Your task to perform on an android device: Show me the alarms in the clock app Image 0: 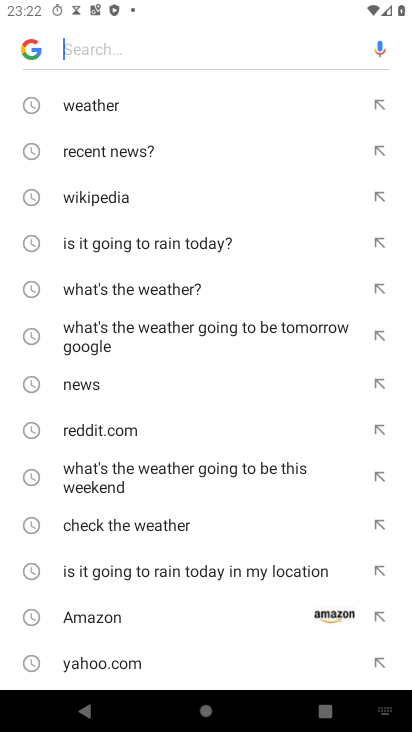
Step 0: press home button
Your task to perform on an android device: Show me the alarms in the clock app Image 1: 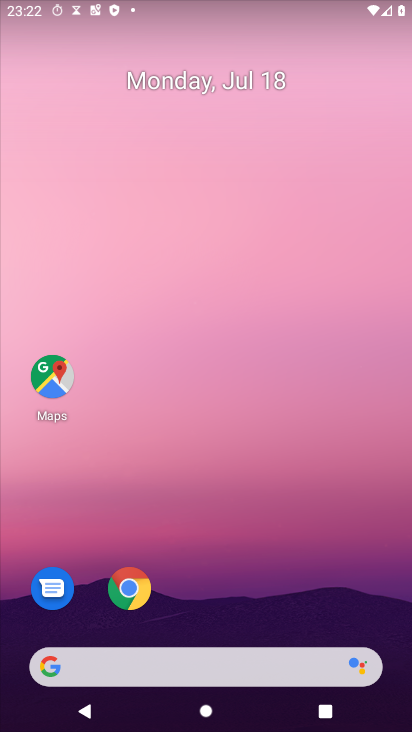
Step 1: drag from (184, 668) to (233, 222)
Your task to perform on an android device: Show me the alarms in the clock app Image 2: 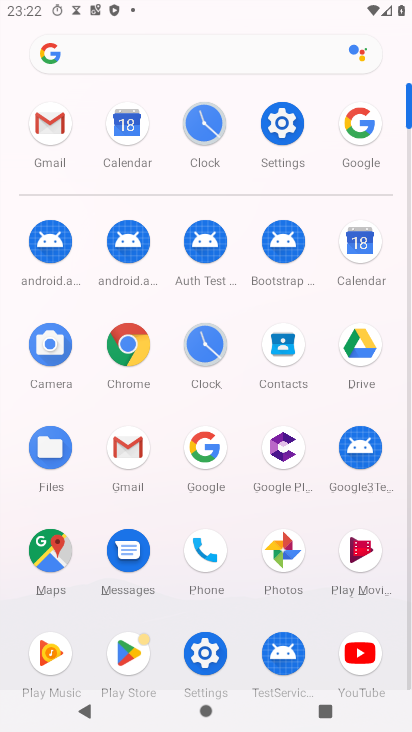
Step 2: click (204, 125)
Your task to perform on an android device: Show me the alarms in the clock app Image 3: 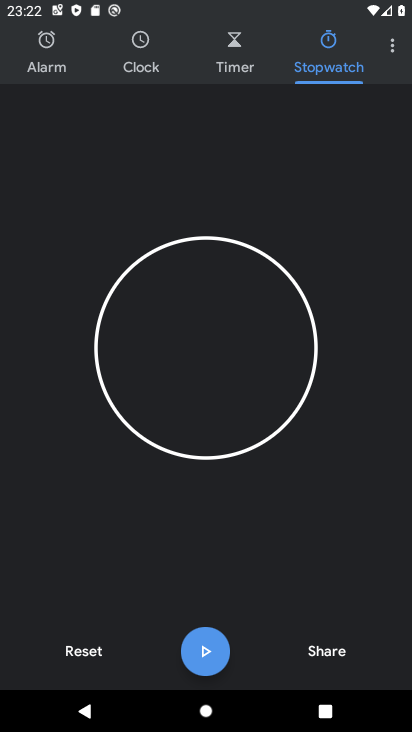
Step 3: click (46, 61)
Your task to perform on an android device: Show me the alarms in the clock app Image 4: 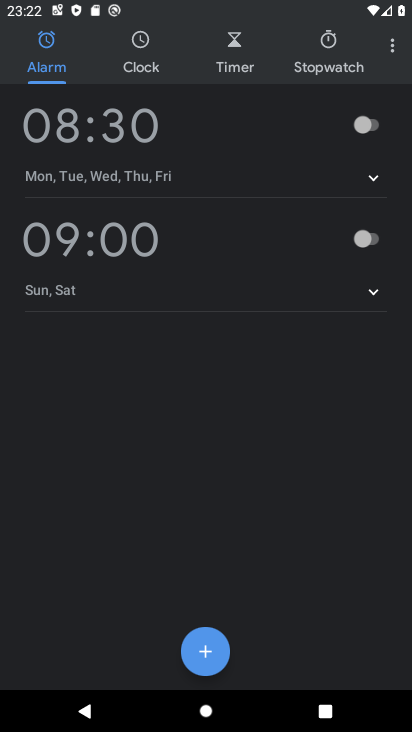
Step 4: task complete